Your task to perform on an android device: Open calendar and show me the fourth week of next month Image 0: 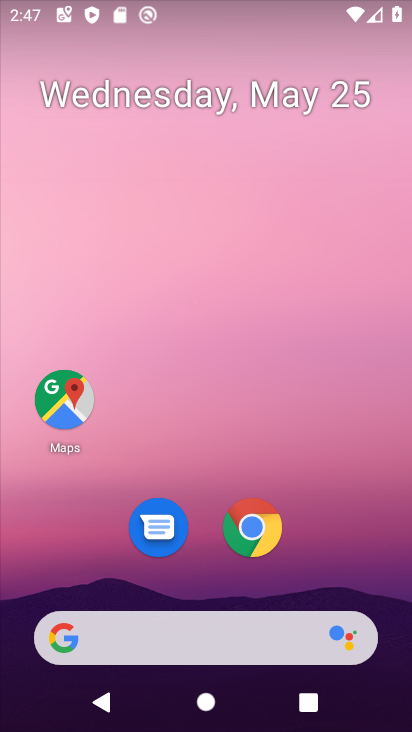
Step 0: drag from (151, 596) to (208, 75)
Your task to perform on an android device: Open calendar and show me the fourth week of next month Image 1: 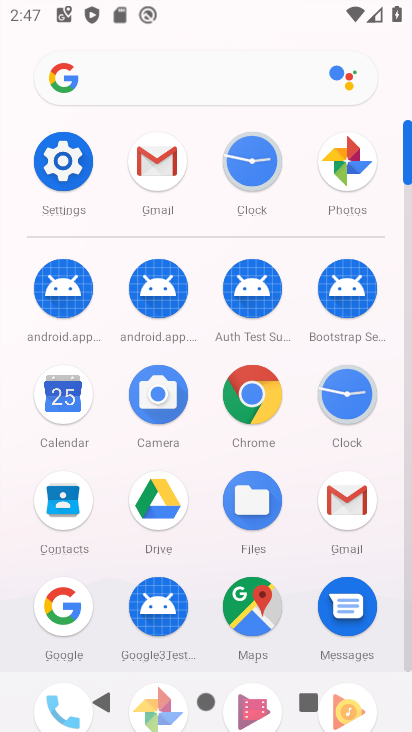
Step 1: click (63, 406)
Your task to perform on an android device: Open calendar and show me the fourth week of next month Image 2: 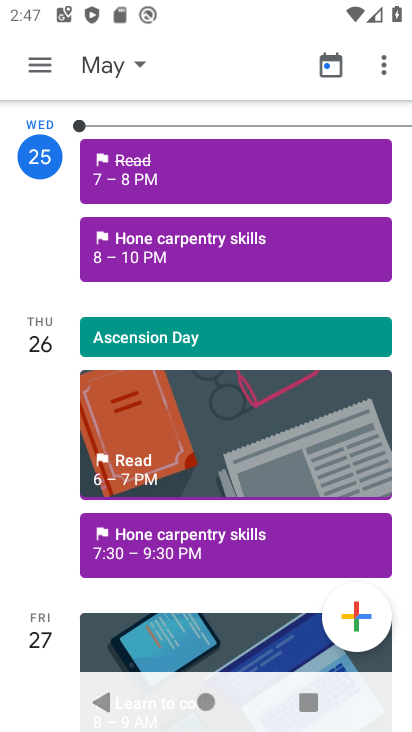
Step 2: click (106, 62)
Your task to perform on an android device: Open calendar and show me the fourth week of next month Image 3: 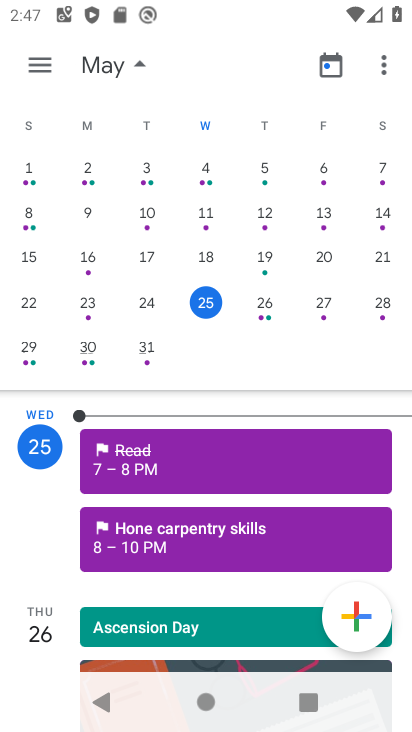
Step 3: drag from (390, 236) to (70, 200)
Your task to perform on an android device: Open calendar and show me the fourth week of next month Image 4: 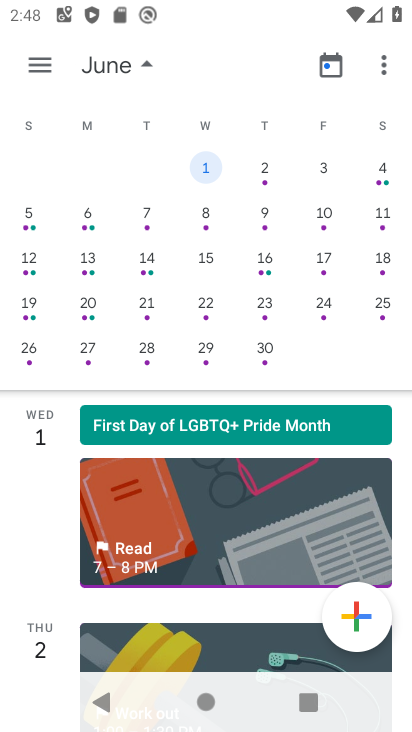
Step 4: click (86, 298)
Your task to perform on an android device: Open calendar and show me the fourth week of next month Image 5: 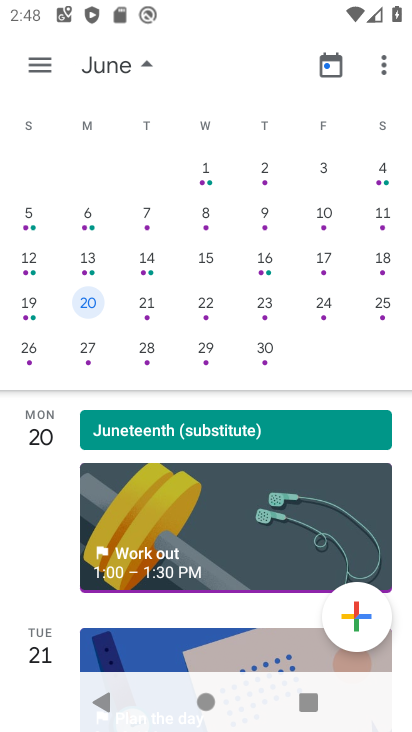
Step 5: task complete